Your task to perform on an android device: turn on airplane mode Image 0: 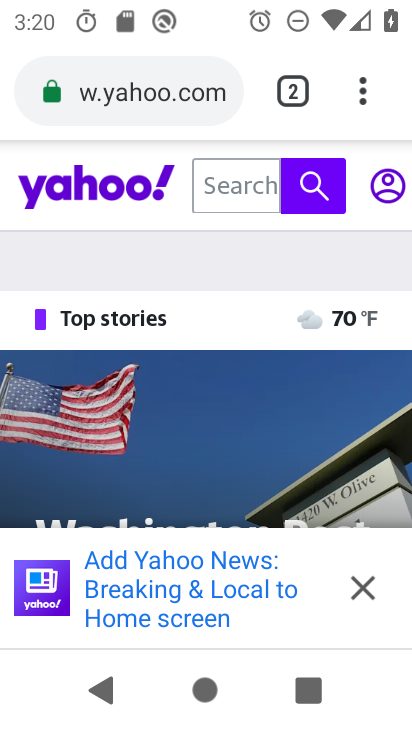
Step 0: press home button
Your task to perform on an android device: turn on airplane mode Image 1: 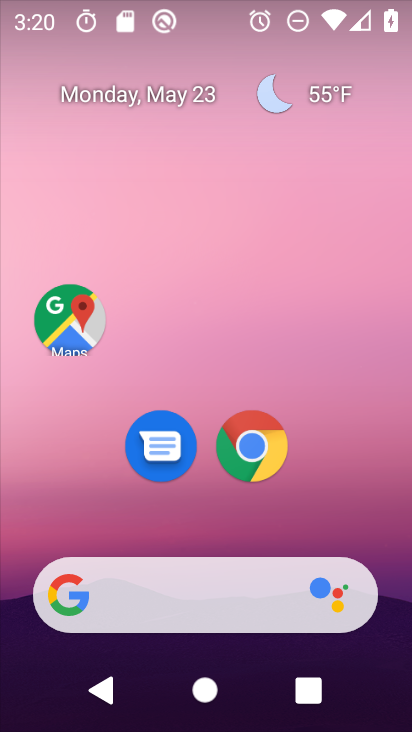
Step 1: drag from (204, 506) to (137, 114)
Your task to perform on an android device: turn on airplane mode Image 2: 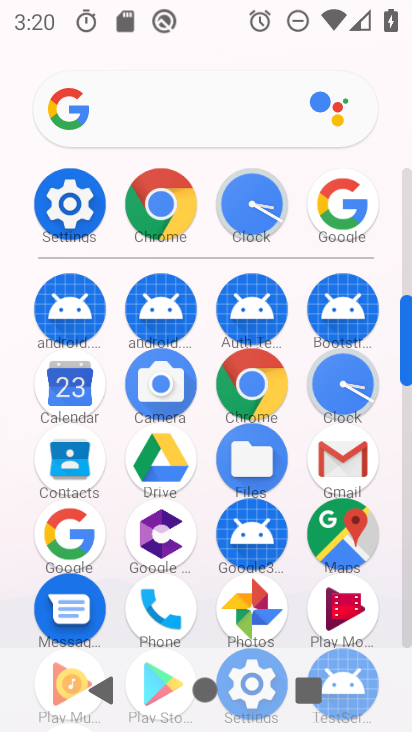
Step 2: click (82, 192)
Your task to perform on an android device: turn on airplane mode Image 3: 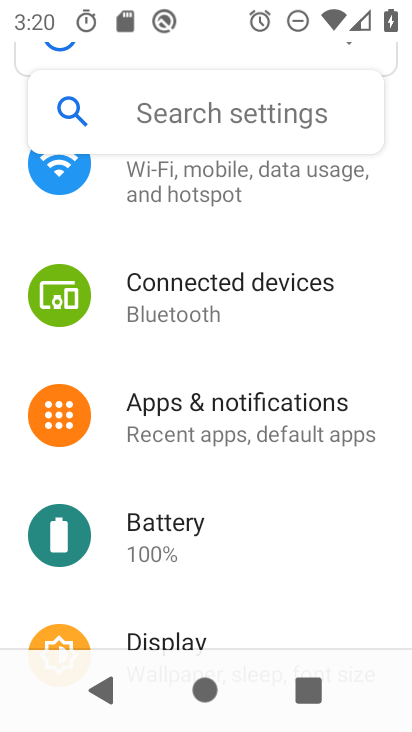
Step 3: drag from (205, 249) to (269, 523)
Your task to perform on an android device: turn on airplane mode Image 4: 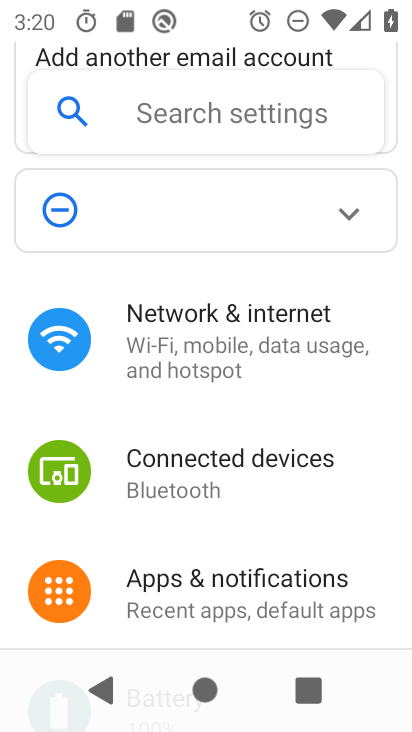
Step 4: click (208, 298)
Your task to perform on an android device: turn on airplane mode Image 5: 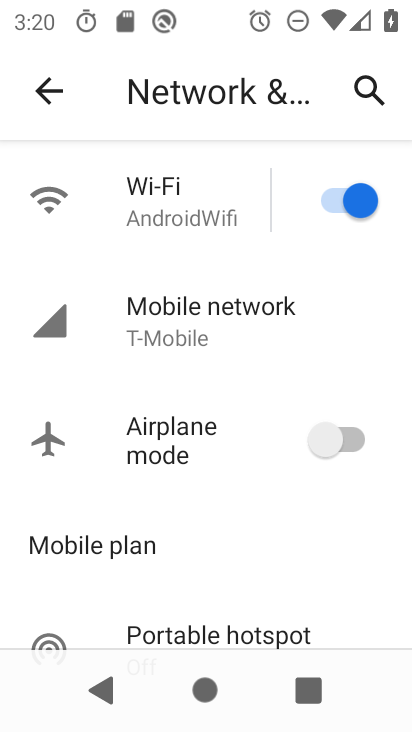
Step 5: click (353, 436)
Your task to perform on an android device: turn on airplane mode Image 6: 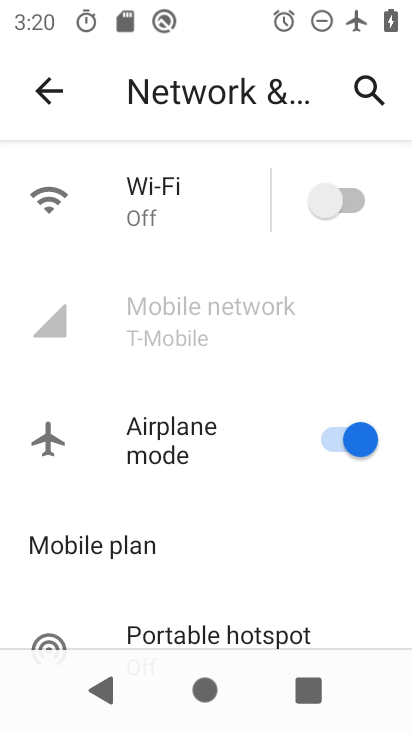
Step 6: task complete